Your task to perform on an android device: Go to accessibility settings Image 0: 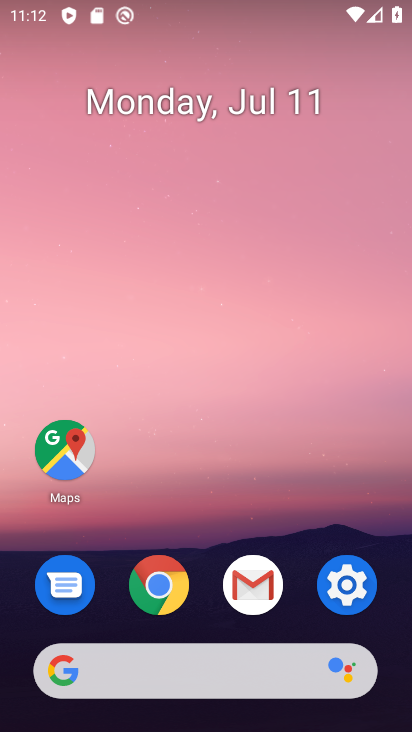
Step 0: press home button
Your task to perform on an android device: Go to accessibility settings Image 1: 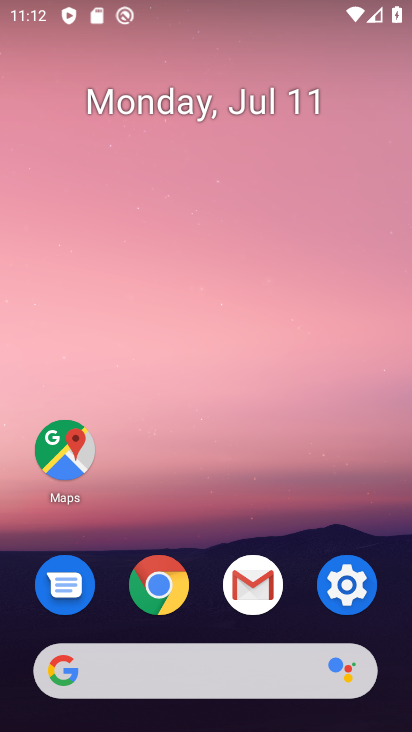
Step 1: click (364, 593)
Your task to perform on an android device: Go to accessibility settings Image 2: 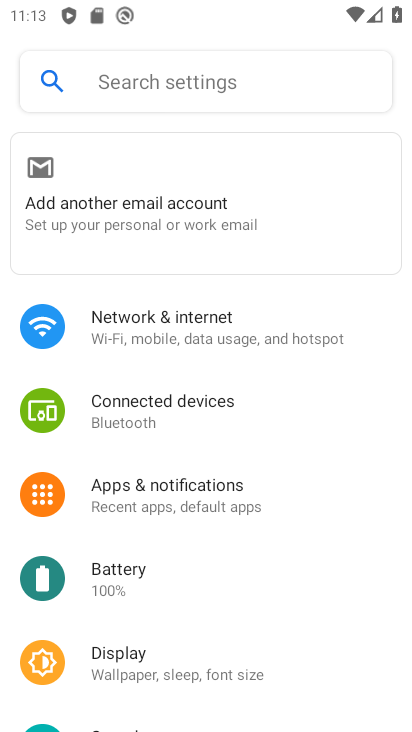
Step 2: click (144, 77)
Your task to perform on an android device: Go to accessibility settings Image 3: 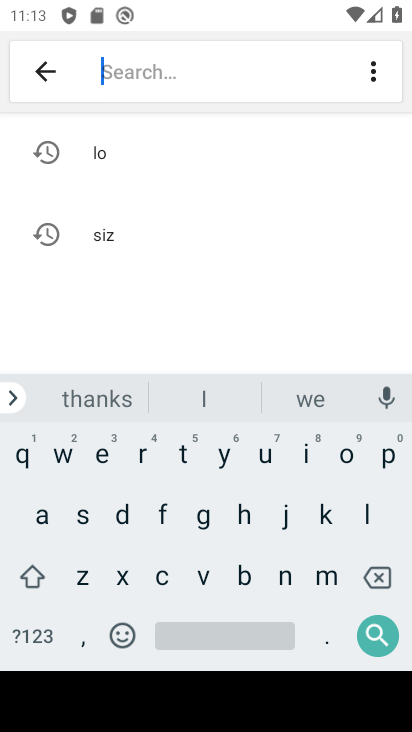
Step 3: click (30, 534)
Your task to perform on an android device: Go to accessibility settings Image 4: 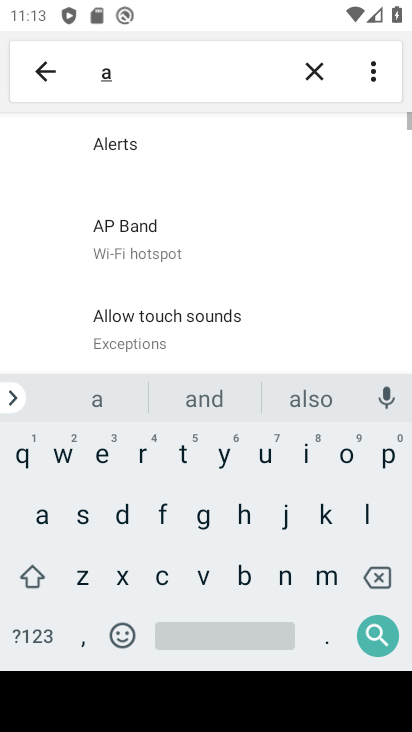
Step 4: click (145, 569)
Your task to perform on an android device: Go to accessibility settings Image 5: 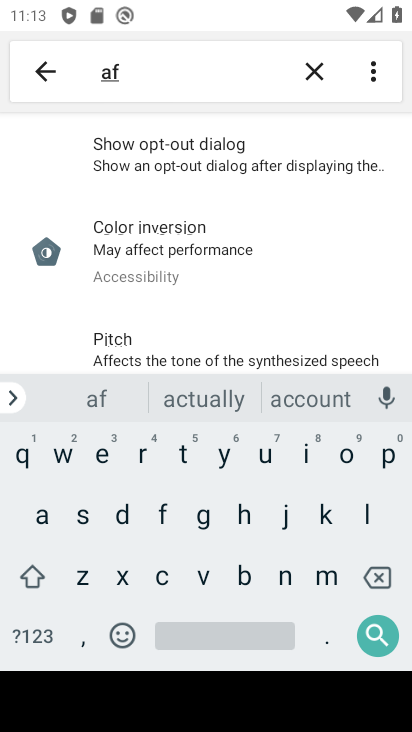
Step 5: click (372, 580)
Your task to perform on an android device: Go to accessibility settings Image 6: 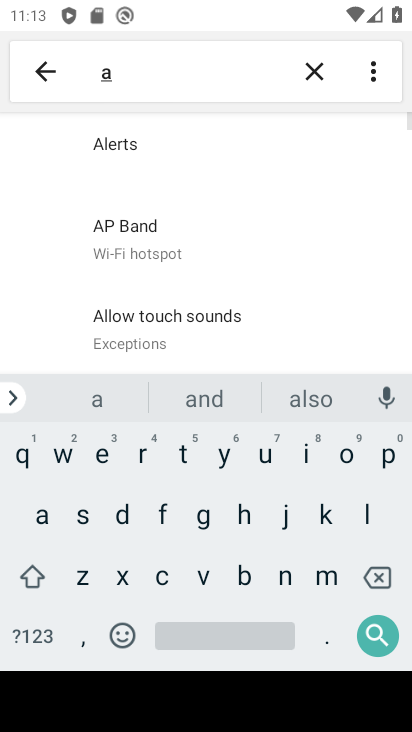
Step 6: click (167, 575)
Your task to perform on an android device: Go to accessibility settings Image 7: 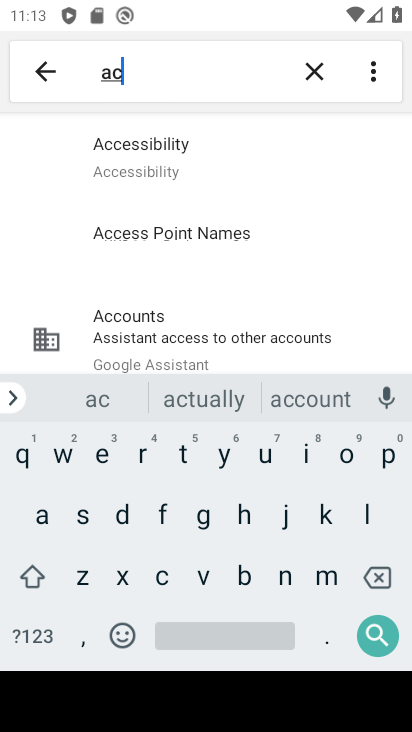
Step 7: click (141, 146)
Your task to perform on an android device: Go to accessibility settings Image 8: 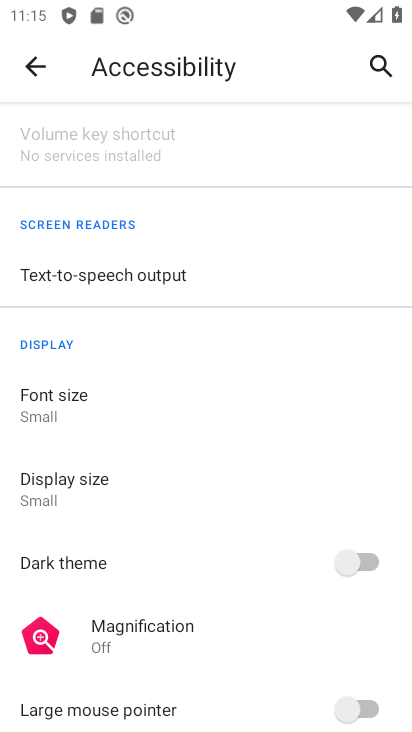
Step 8: task complete